Your task to perform on an android device: Is it going to rain tomorrow? Image 0: 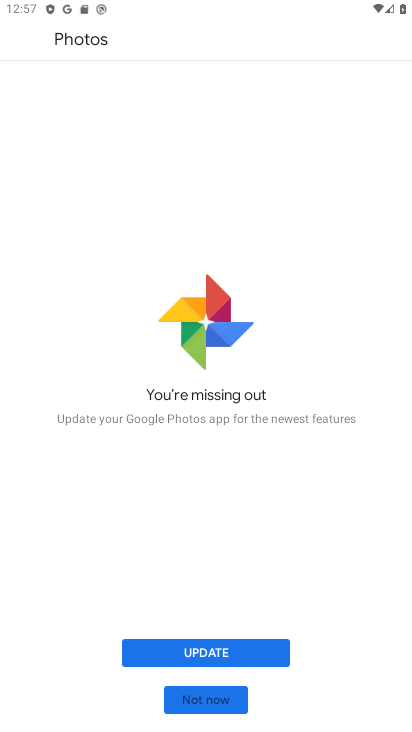
Step 0: press home button
Your task to perform on an android device: Is it going to rain tomorrow? Image 1: 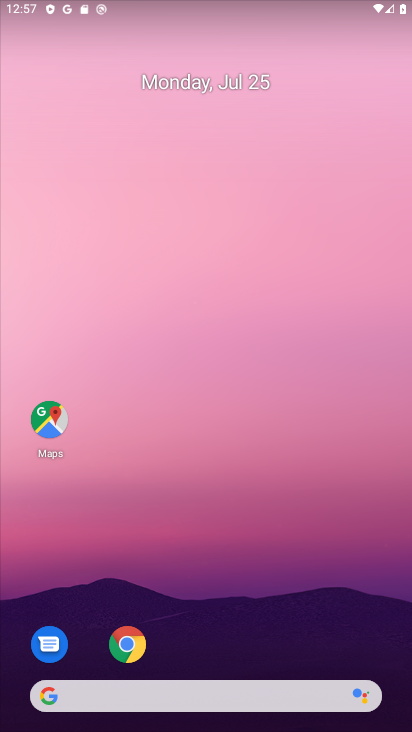
Step 1: click (153, 702)
Your task to perform on an android device: Is it going to rain tomorrow? Image 2: 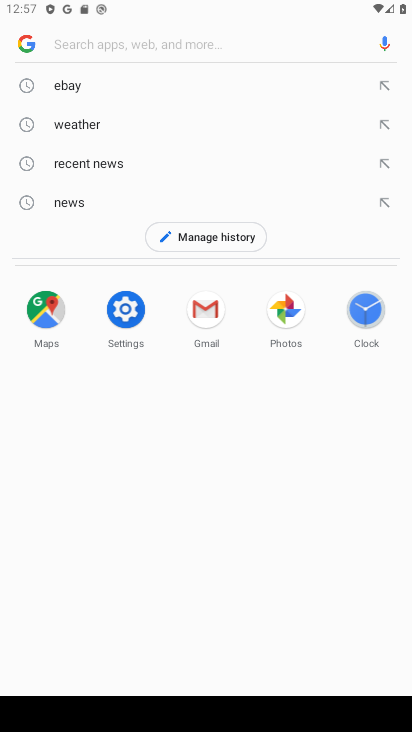
Step 2: type "is it going to rain tomorrow?"
Your task to perform on an android device: Is it going to rain tomorrow? Image 3: 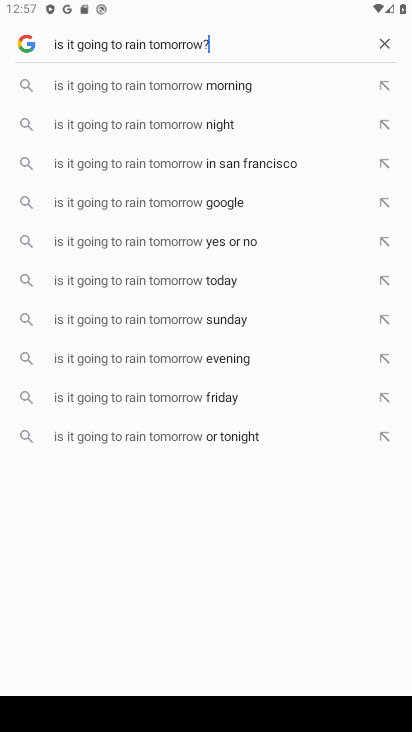
Step 3: click (149, 197)
Your task to perform on an android device: Is it going to rain tomorrow? Image 4: 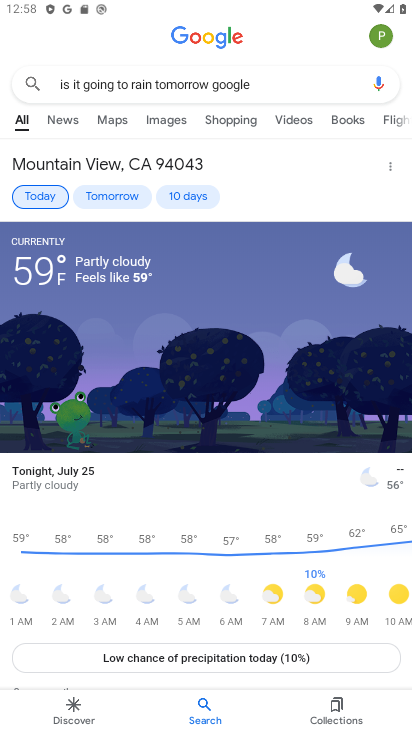
Step 4: click (129, 196)
Your task to perform on an android device: Is it going to rain tomorrow? Image 5: 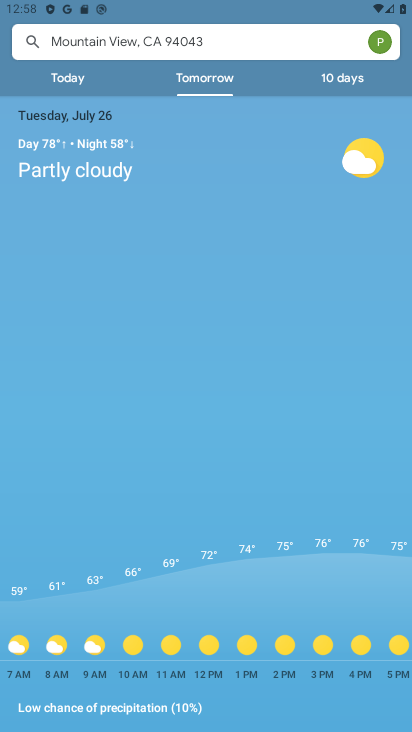
Step 5: task complete